Your task to perform on an android device: add a contact Image 0: 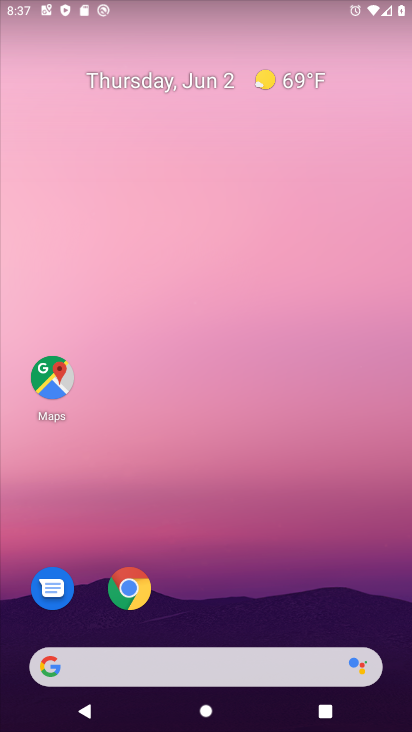
Step 0: drag from (233, 721) to (249, 98)
Your task to perform on an android device: add a contact Image 1: 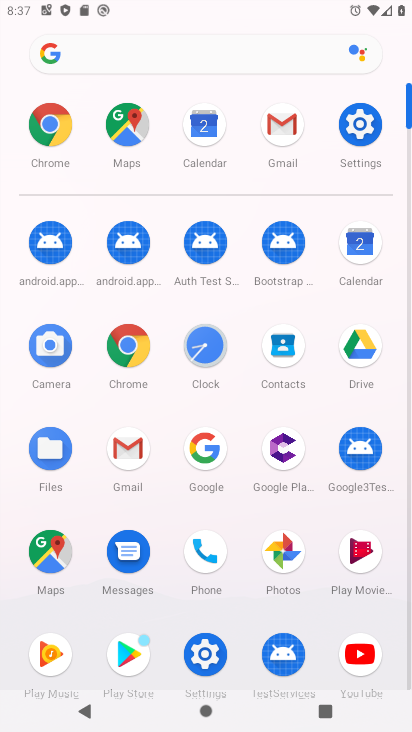
Step 1: click (281, 338)
Your task to perform on an android device: add a contact Image 2: 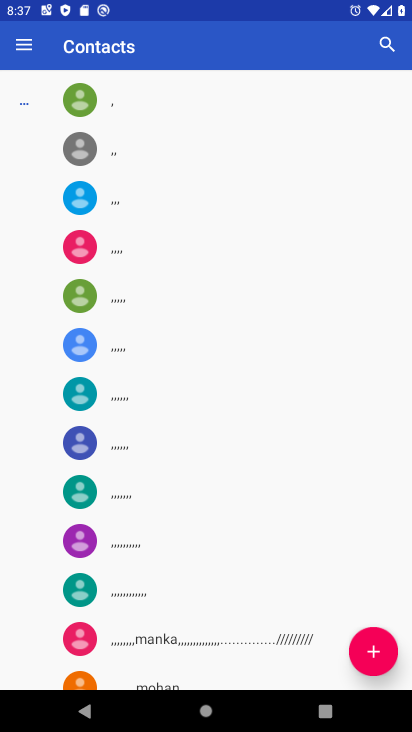
Step 2: click (375, 650)
Your task to perform on an android device: add a contact Image 3: 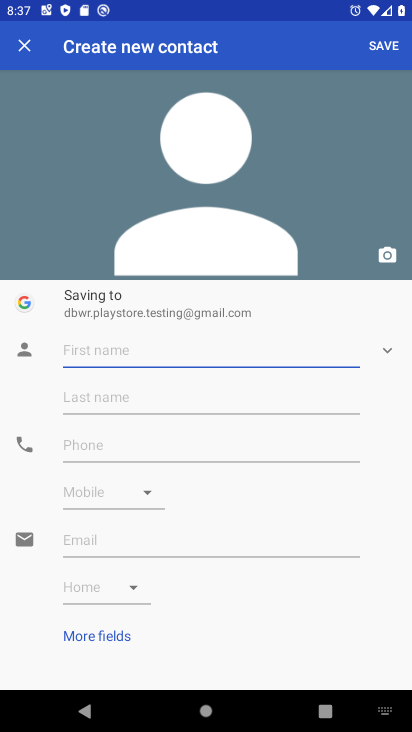
Step 3: type "styamave "
Your task to perform on an android device: add a contact Image 4: 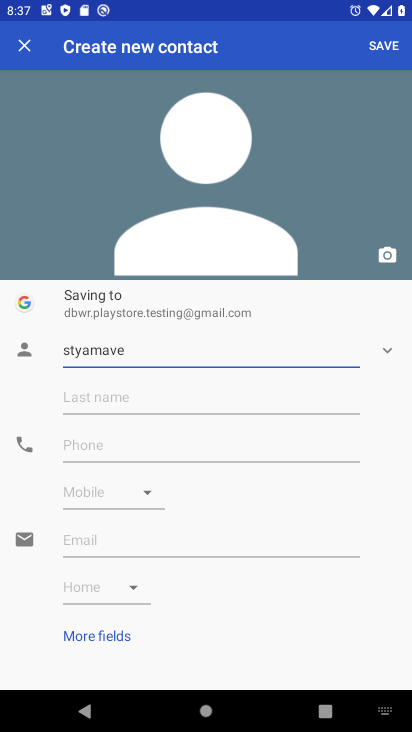
Step 4: click (139, 448)
Your task to perform on an android device: add a contact Image 5: 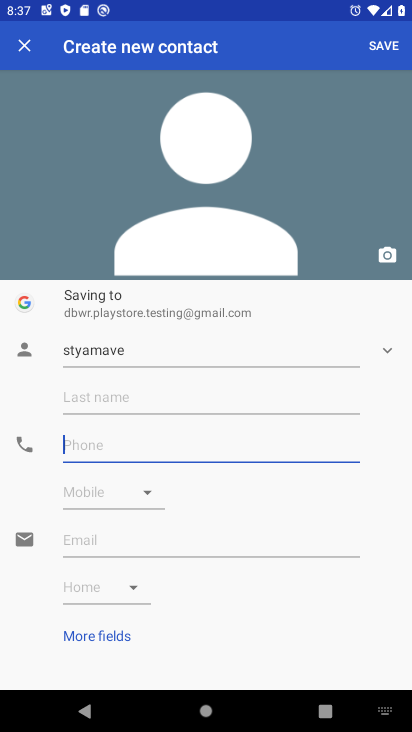
Step 5: type "777"
Your task to perform on an android device: add a contact Image 6: 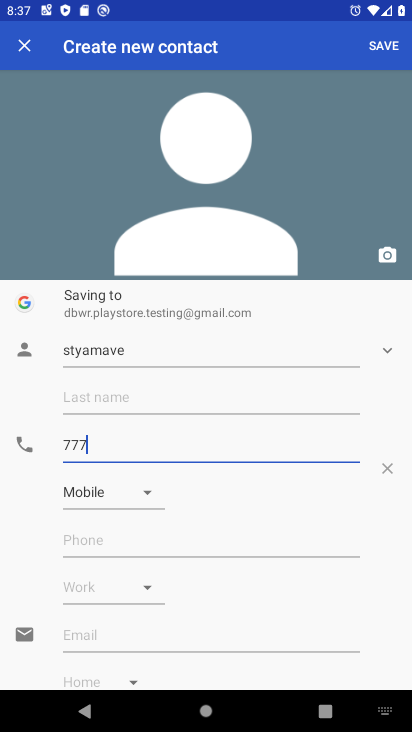
Step 6: click (383, 41)
Your task to perform on an android device: add a contact Image 7: 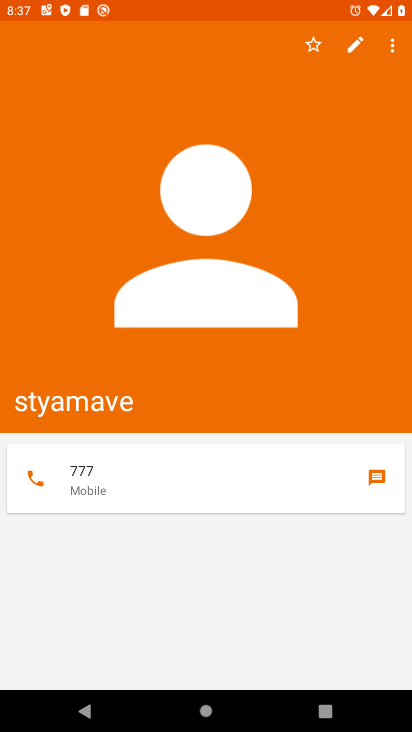
Step 7: task complete